Your task to perform on an android device: open chrome and create a bookmark for the current page Image 0: 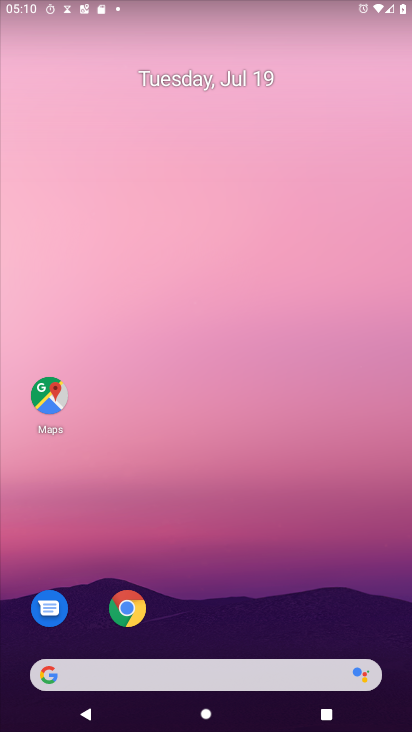
Step 0: click (128, 610)
Your task to perform on an android device: open chrome and create a bookmark for the current page Image 1: 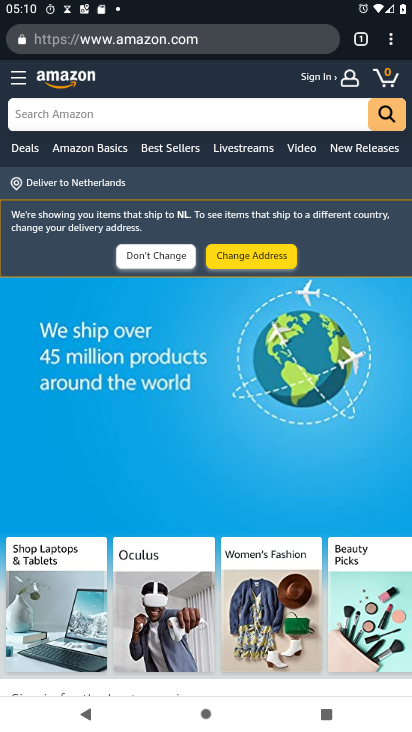
Step 1: click (393, 42)
Your task to perform on an android device: open chrome and create a bookmark for the current page Image 2: 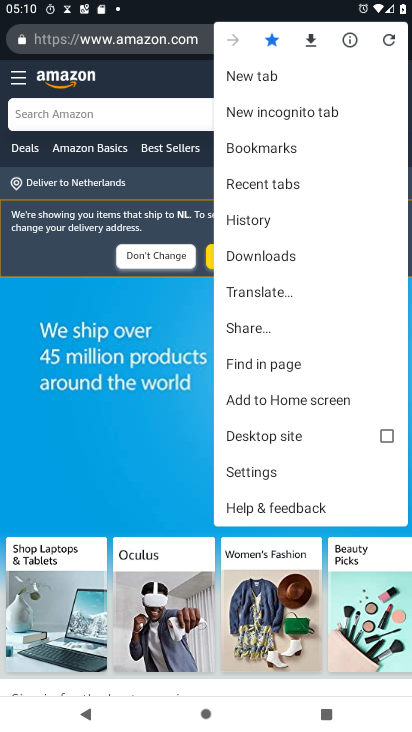
Step 2: task complete